Your task to perform on an android device: Open Chrome and go to settings Image 0: 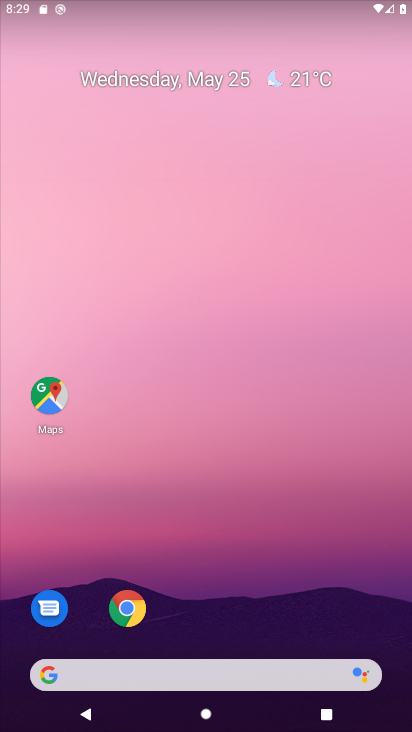
Step 0: click (133, 607)
Your task to perform on an android device: Open Chrome and go to settings Image 1: 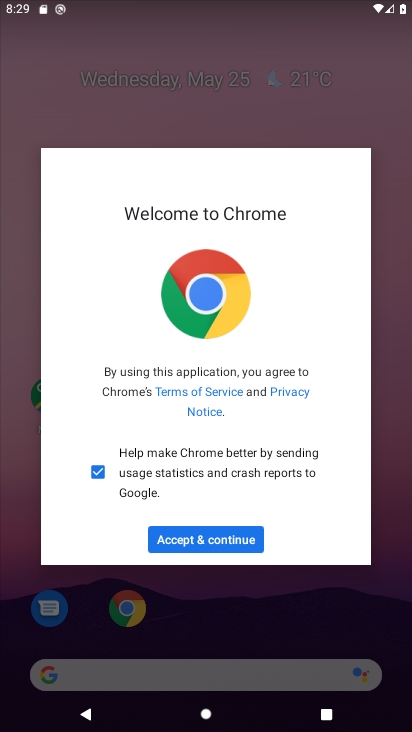
Step 1: click (195, 536)
Your task to perform on an android device: Open Chrome and go to settings Image 2: 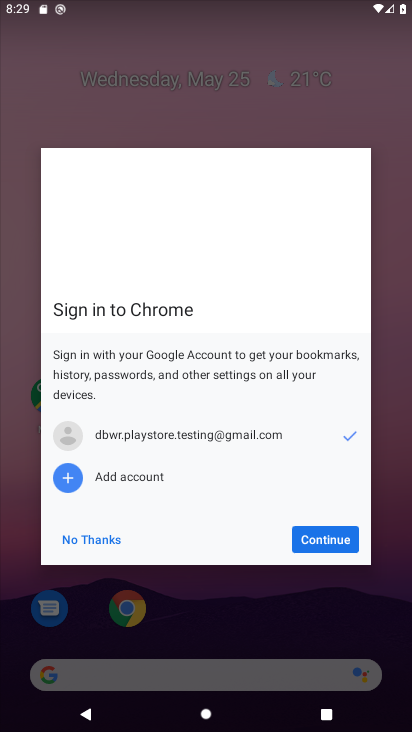
Step 2: click (314, 535)
Your task to perform on an android device: Open Chrome and go to settings Image 3: 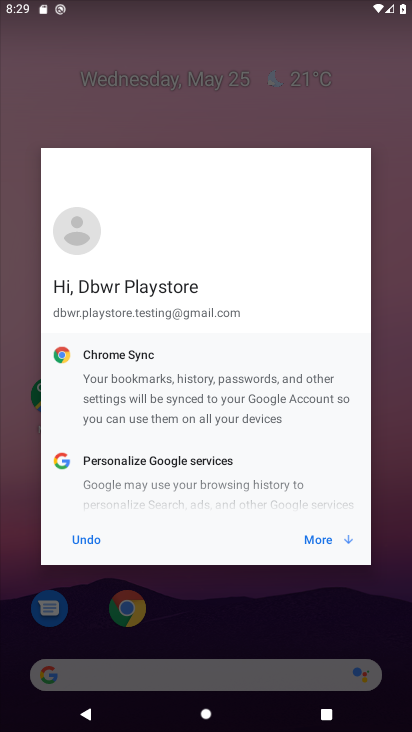
Step 3: click (317, 537)
Your task to perform on an android device: Open Chrome and go to settings Image 4: 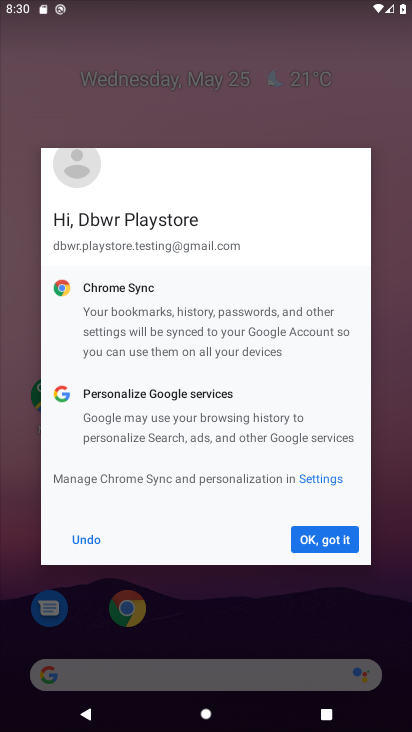
Step 4: click (317, 537)
Your task to perform on an android device: Open Chrome and go to settings Image 5: 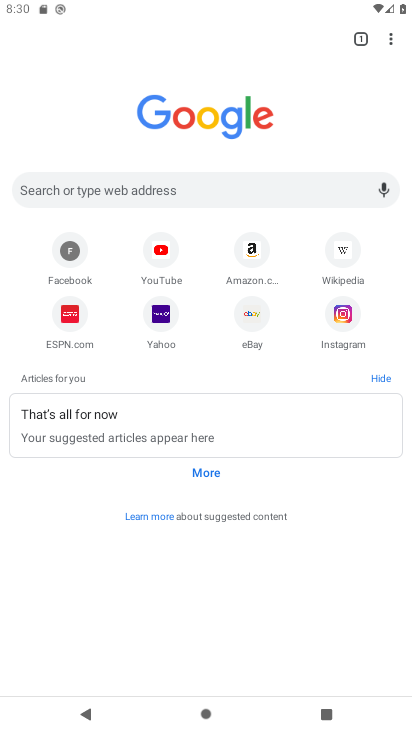
Step 5: click (391, 42)
Your task to perform on an android device: Open Chrome and go to settings Image 6: 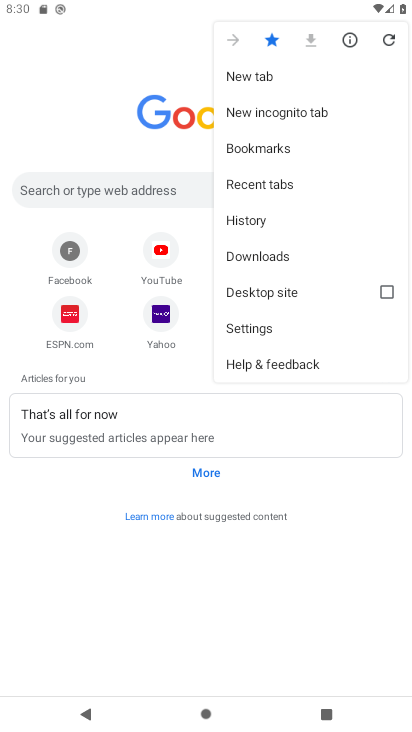
Step 6: click (253, 328)
Your task to perform on an android device: Open Chrome and go to settings Image 7: 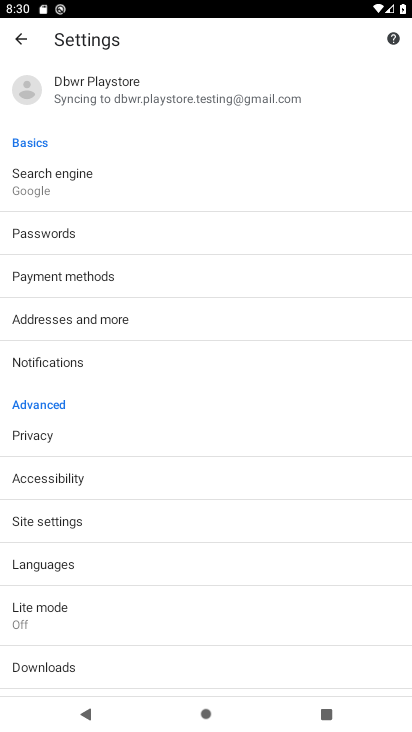
Step 7: task complete